Your task to perform on an android device: check data usage Image 0: 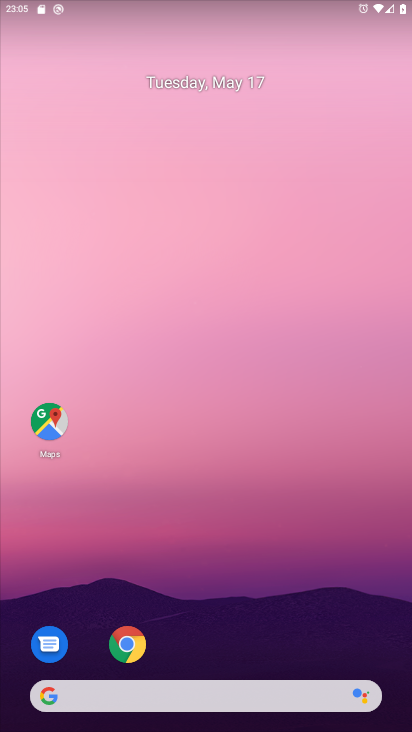
Step 0: drag from (222, 649) to (264, 183)
Your task to perform on an android device: check data usage Image 1: 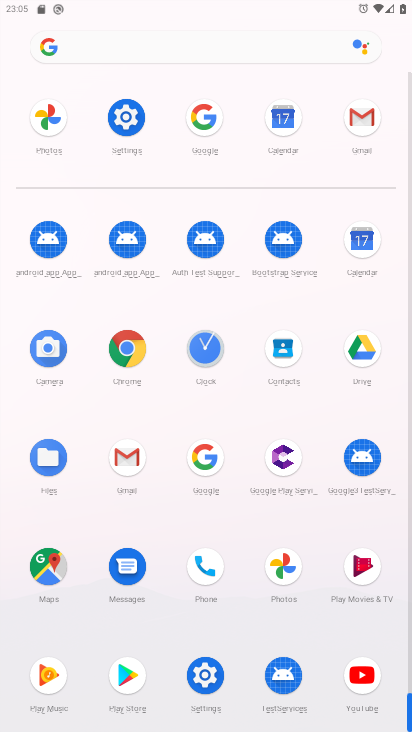
Step 1: click (122, 116)
Your task to perform on an android device: check data usage Image 2: 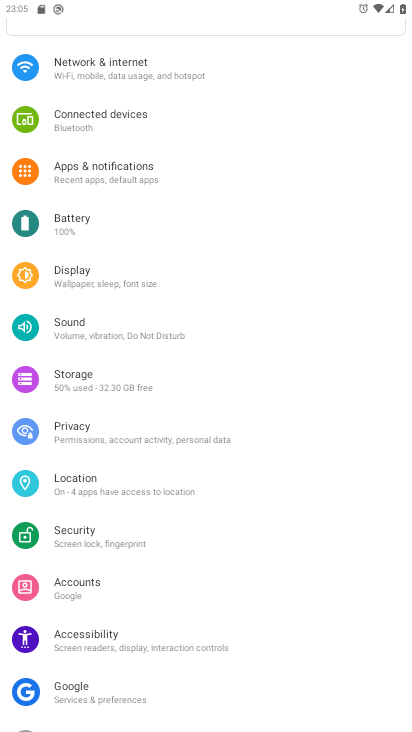
Step 2: click (159, 30)
Your task to perform on an android device: check data usage Image 3: 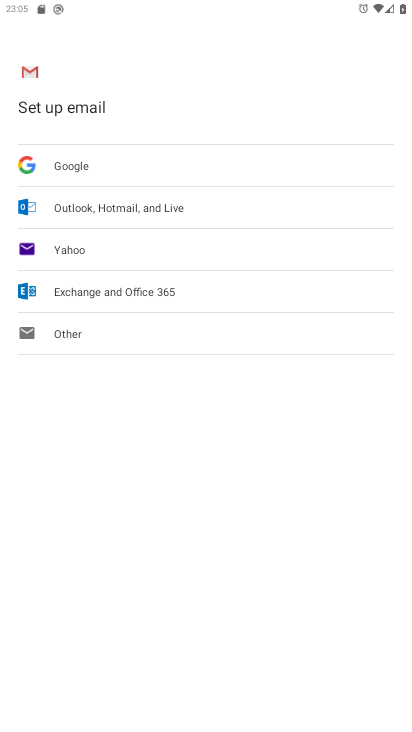
Step 3: press home button
Your task to perform on an android device: check data usage Image 4: 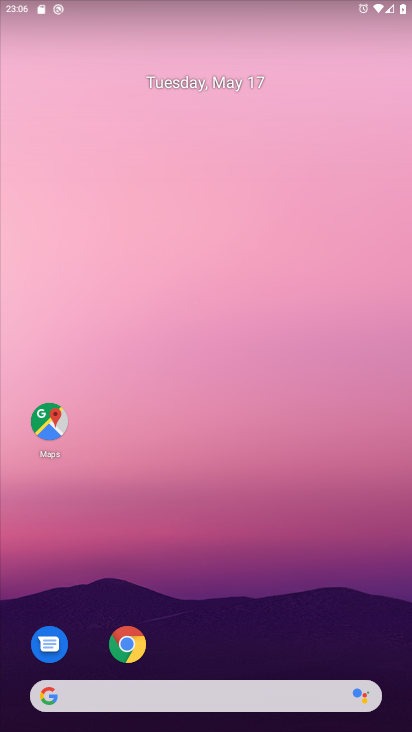
Step 4: drag from (224, 652) to (248, 165)
Your task to perform on an android device: check data usage Image 5: 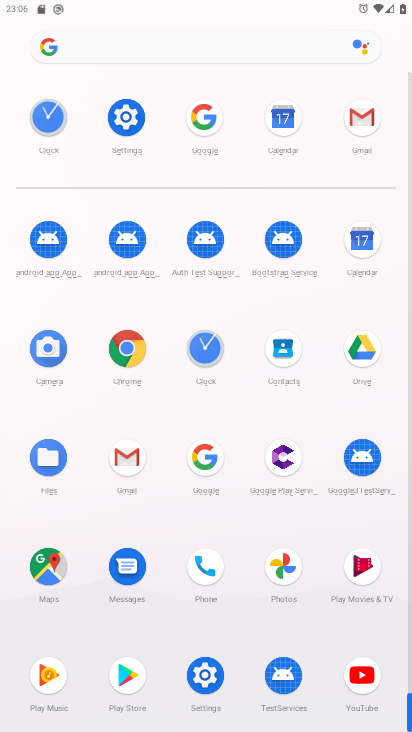
Step 5: click (124, 117)
Your task to perform on an android device: check data usage Image 6: 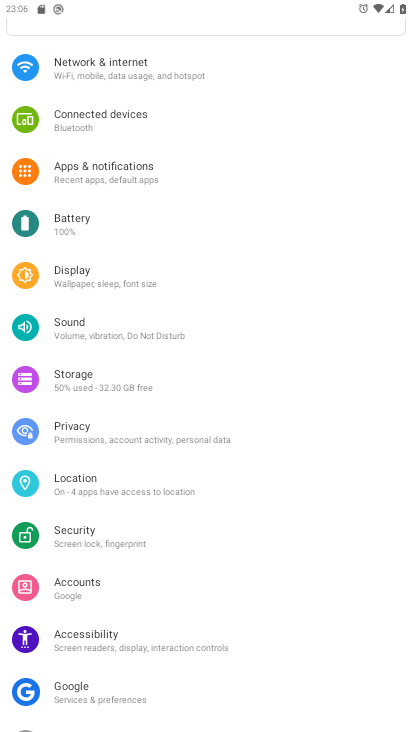
Step 6: click (149, 67)
Your task to perform on an android device: check data usage Image 7: 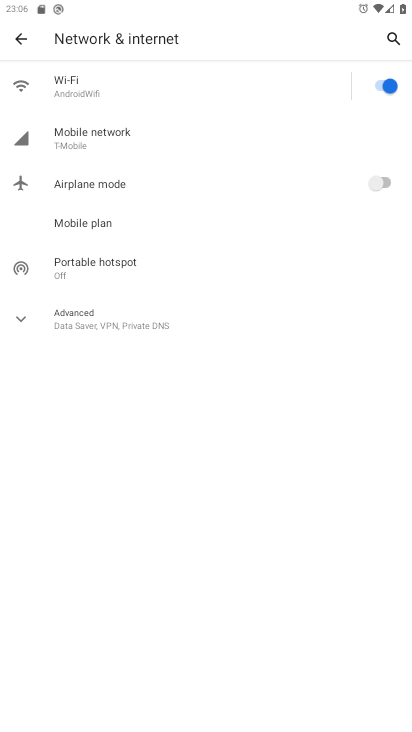
Step 7: click (128, 139)
Your task to perform on an android device: check data usage Image 8: 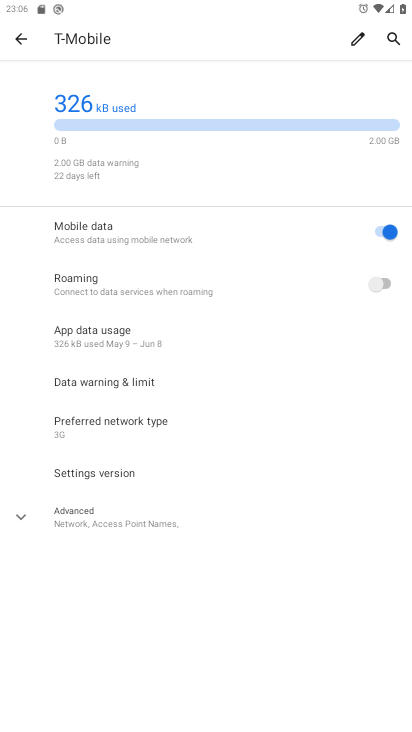
Step 8: click (69, 509)
Your task to perform on an android device: check data usage Image 9: 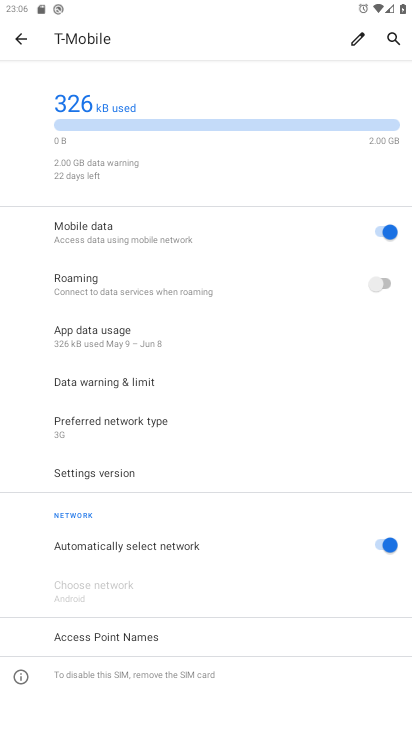
Step 9: click (142, 326)
Your task to perform on an android device: check data usage Image 10: 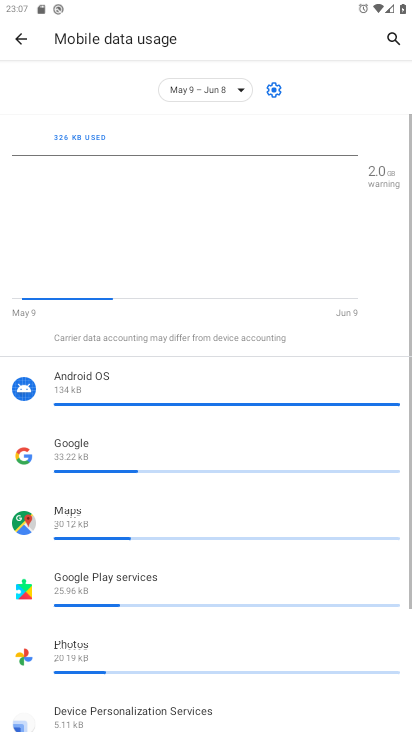
Step 10: task complete